Your task to perform on an android device: Open the calendar app, open the side menu, and click the "Day" option Image 0: 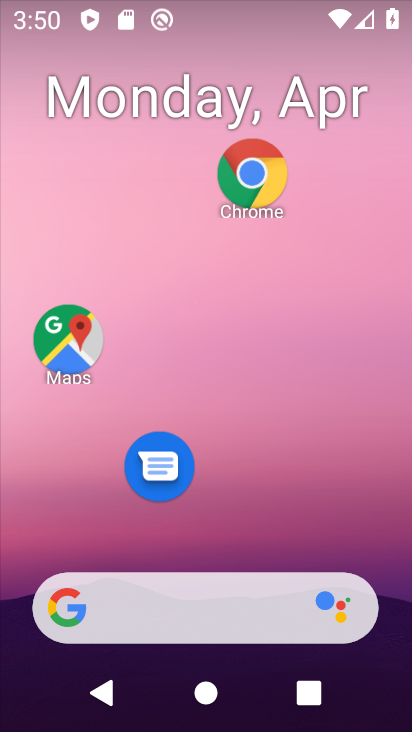
Step 0: drag from (388, 535) to (377, 182)
Your task to perform on an android device: Open the calendar app, open the side menu, and click the "Day" option Image 1: 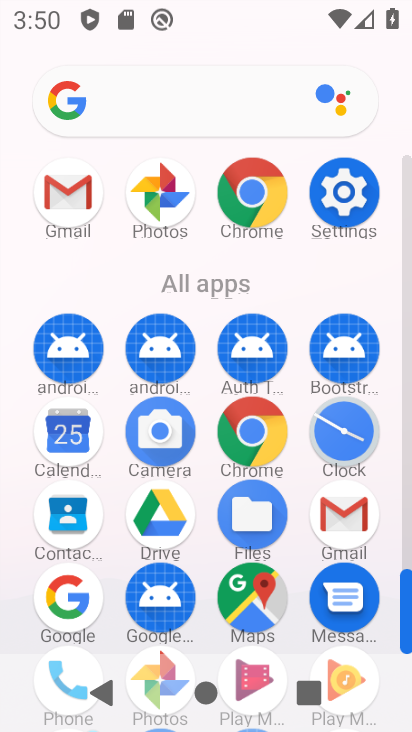
Step 1: click (81, 427)
Your task to perform on an android device: Open the calendar app, open the side menu, and click the "Day" option Image 2: 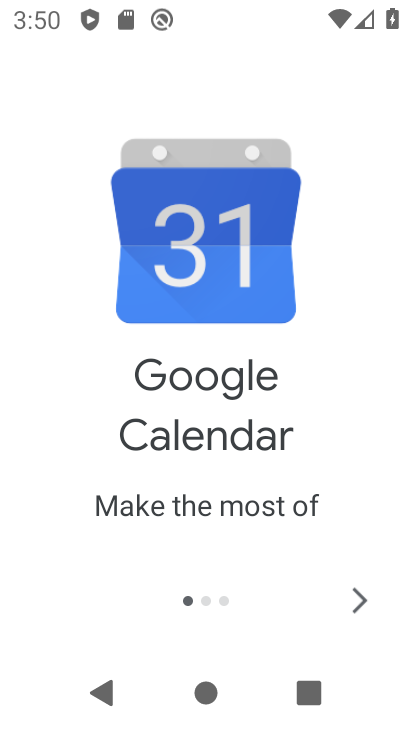
Step 2: click (350, 597)
Your task to perform on an android device: Open the calendar app, open the side menu, and click the "Day" option Image 3: 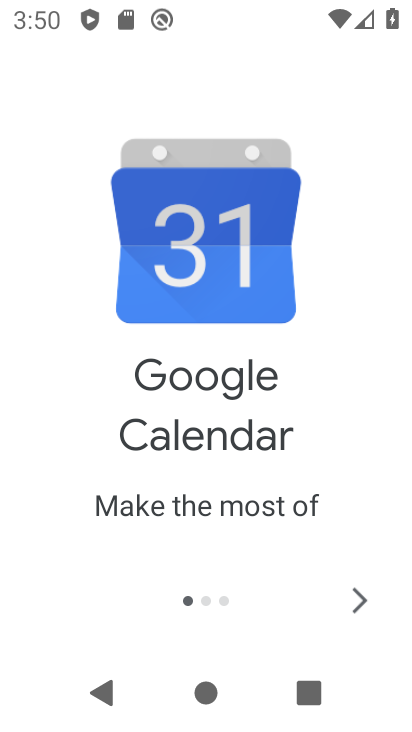
Step 3: click (350, 597)
Your task to perform on an android device: Open the calendar app, open the side menu, and click the "Day" option Image 4: 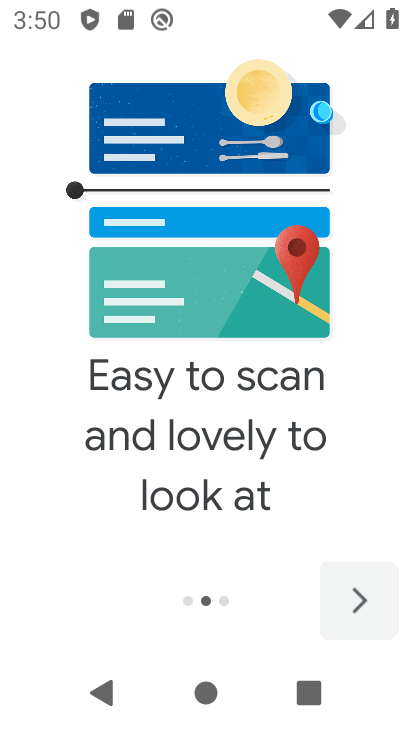
Step 4: click (350, 597)
Your task to perform on an android device: Open the calendar app, open the side menu, and click the "Day" option Image 5: 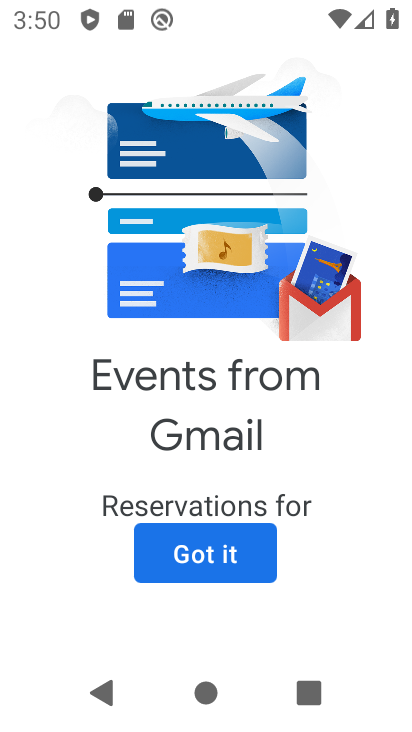
Step 5: click (232, 549)
Your task to perform on an android device: Open the calendar app, open the side menu, and click the "Day" option Image 6: 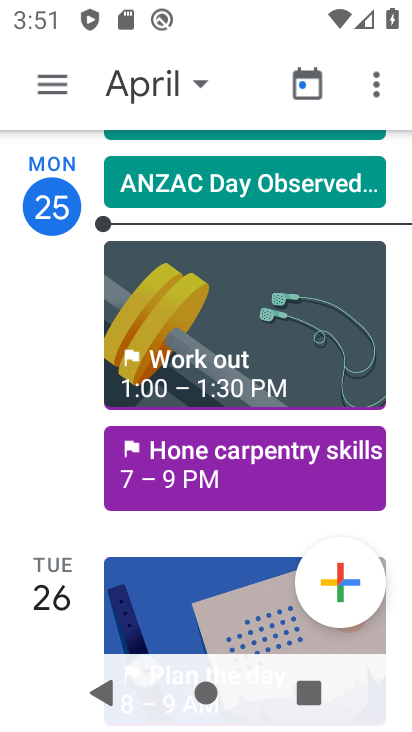
Step 6: click (55, 89)
Your task to perform on an android device: Open the calendar app, open the side menu, and click the "Day" option Image 7: 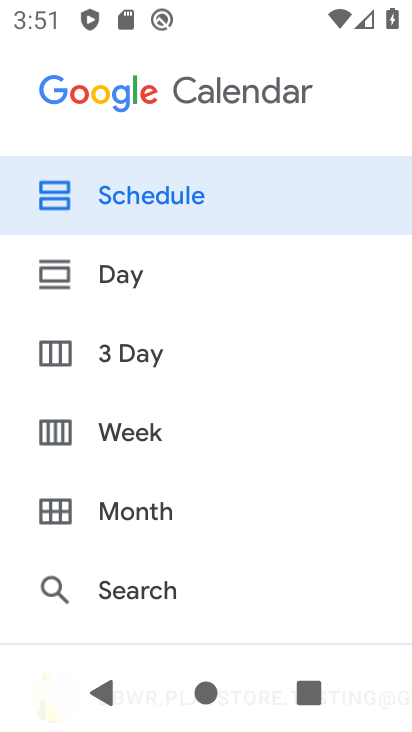
Step 7: click (113, 274)
Your task to perform on an android device: Open the calendar app, open the side menu, and click the "Day" option Image 8: 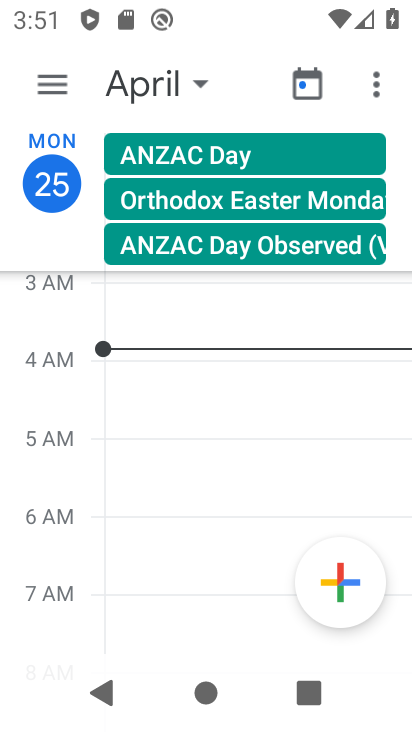
Step 8: task complete